Your task to perform on an android device: What is the recent news? Image 0: 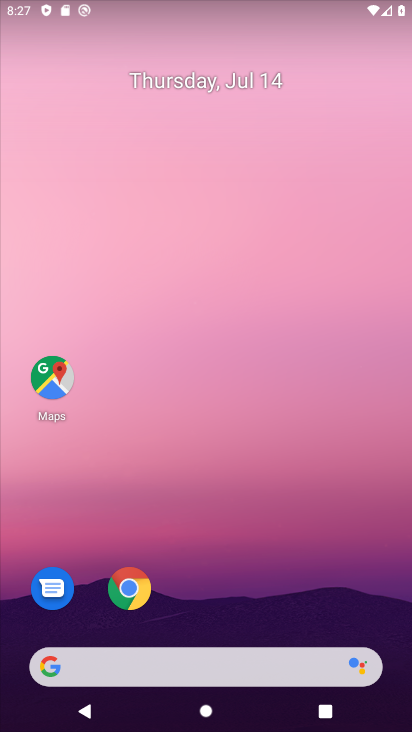
Step 0: drag from (200, 613) to (173, 69)
Your task to perform on an android device: What is the recent news? Image 1: 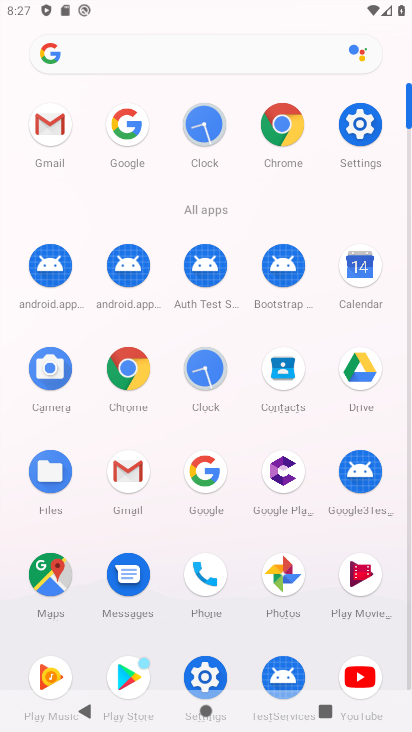
Step 1: click (200, 467)
Your task to perform on an android device: What is the recent news? Image 2: 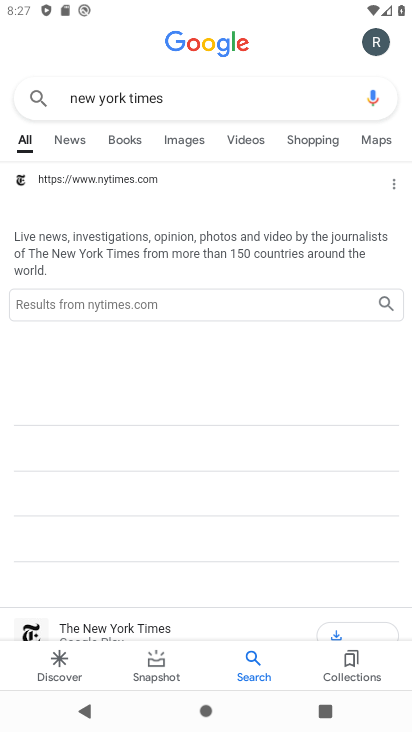
Step 2: click (193, 103)
Your task to perform on an android device: What is the recent news? Image 3: 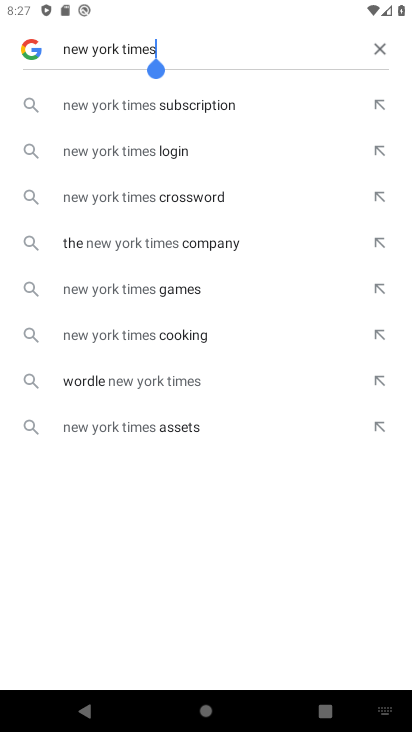
Step 3: click (370, 47)
Your task to perform on an android device: What is the recent news? Image 4: 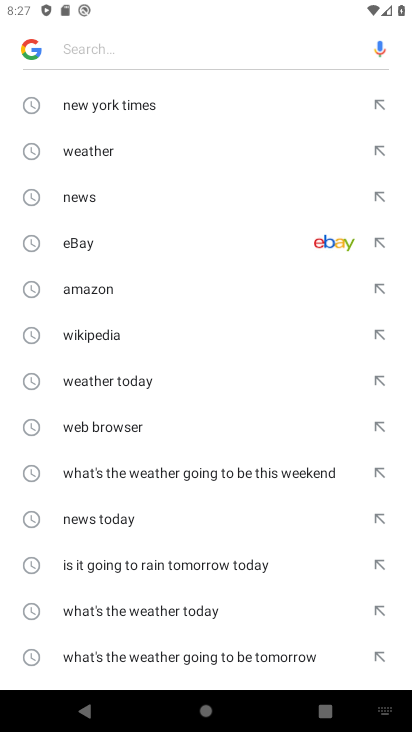
Step 4: drag from (219, 371) to (240, 56)
Your task to perform on an android device: What is the recent news? Image 5: 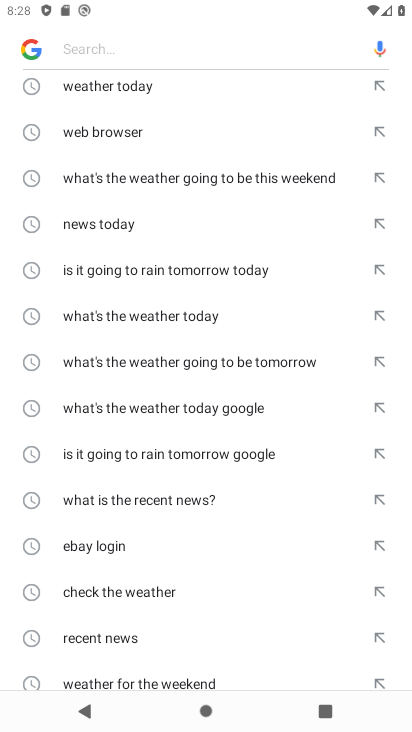
Step 5: click (123, 634)
Your task to perform on an android device: What is the recent news? Image 6: 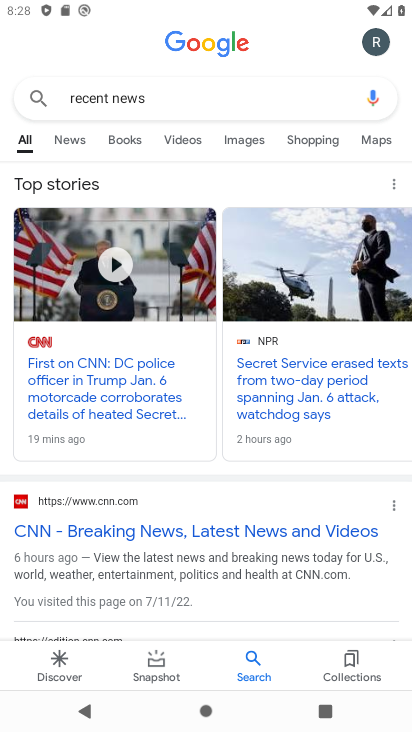
Step 6: task complete